Your task to perform on an android device: What's the news in Taiwan? Image 0: 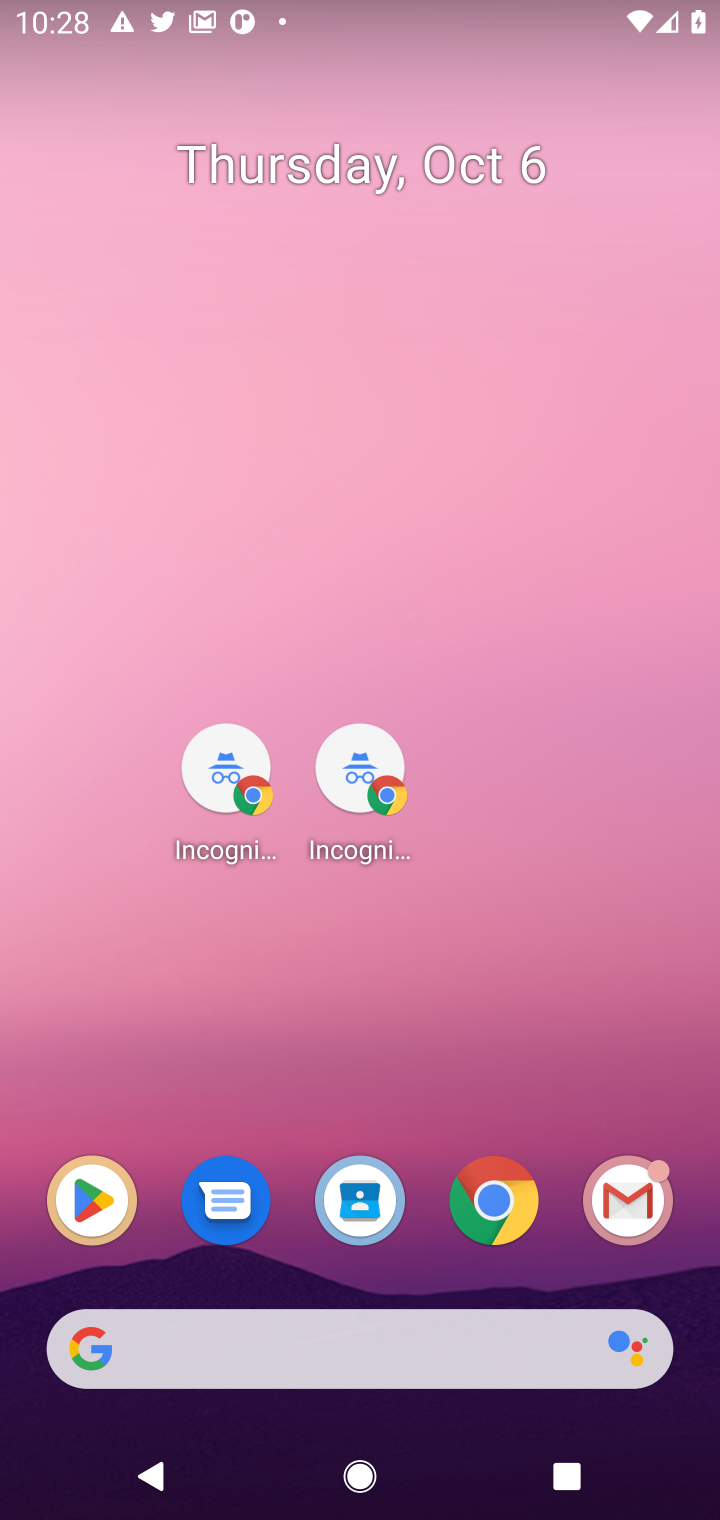
Step 0: click (501, 1191)
Your task to perform on an android device: What's the news in Taiwan? Image 1: 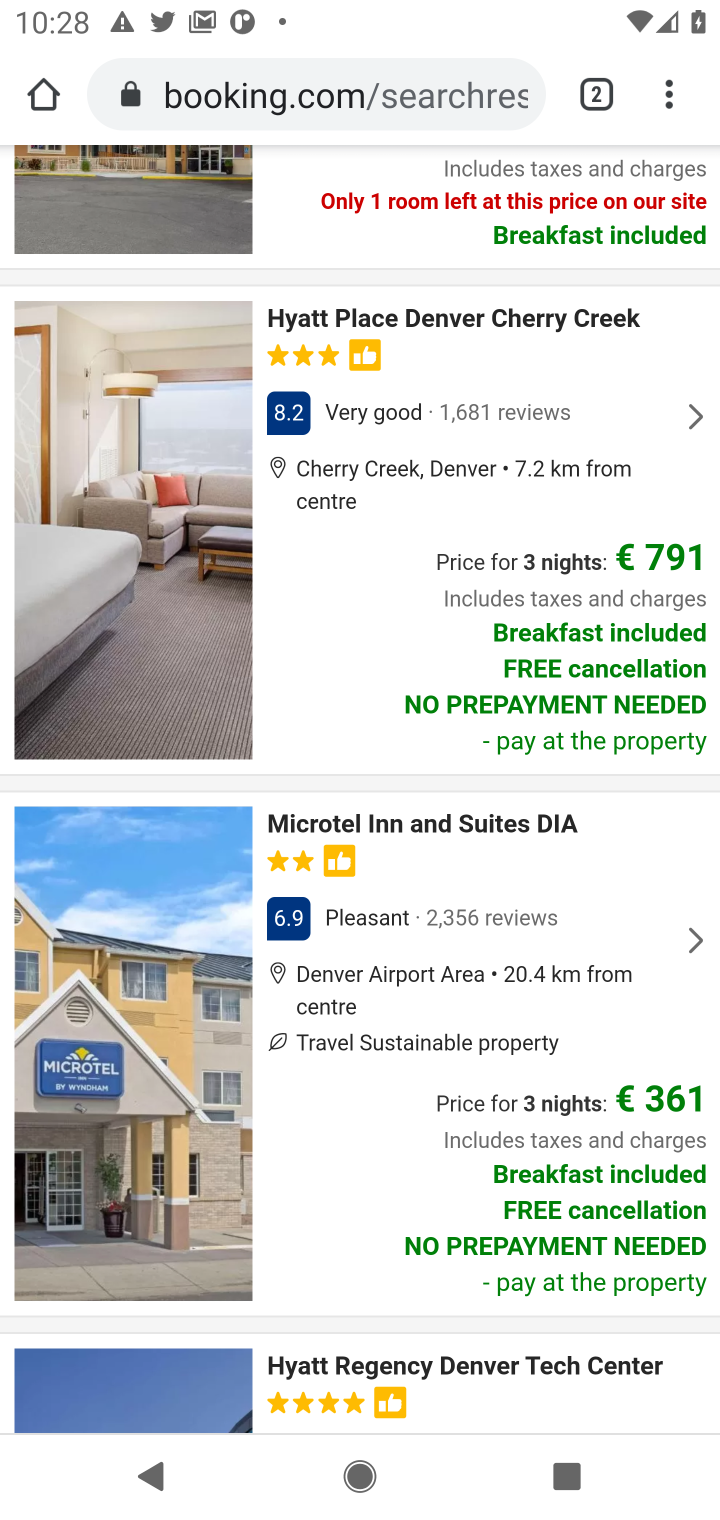
Step 1: click (343, 92)
Your task to perform on an android device: What's the news in Taiwan? Image 2: 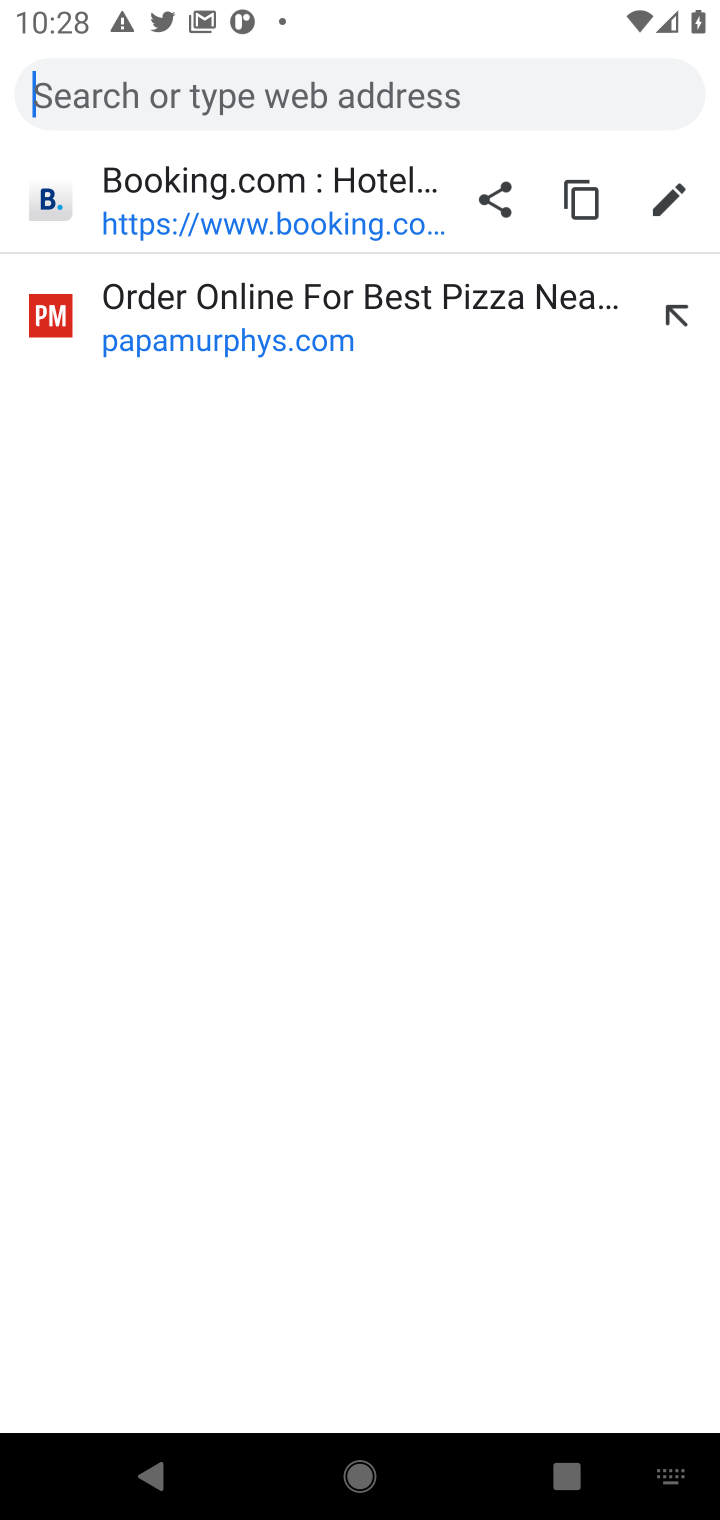
Step 2: type "whats the news in taiwan"
Your task to perform on an android device: What's the news in Taiwan? Image 3: 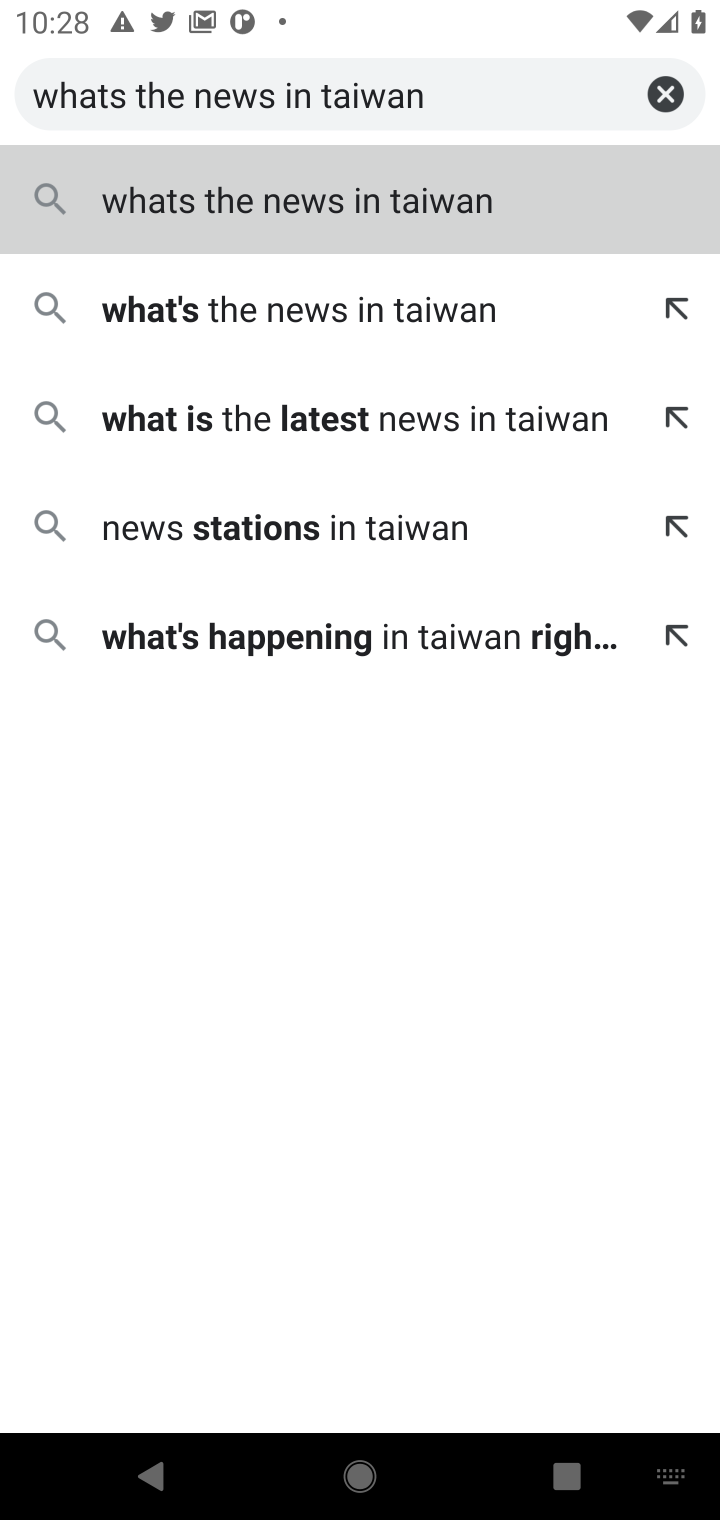
Step 3: click (260, 311)
Your task to perform on an android device: What's the news in Taiwan? Image 4: 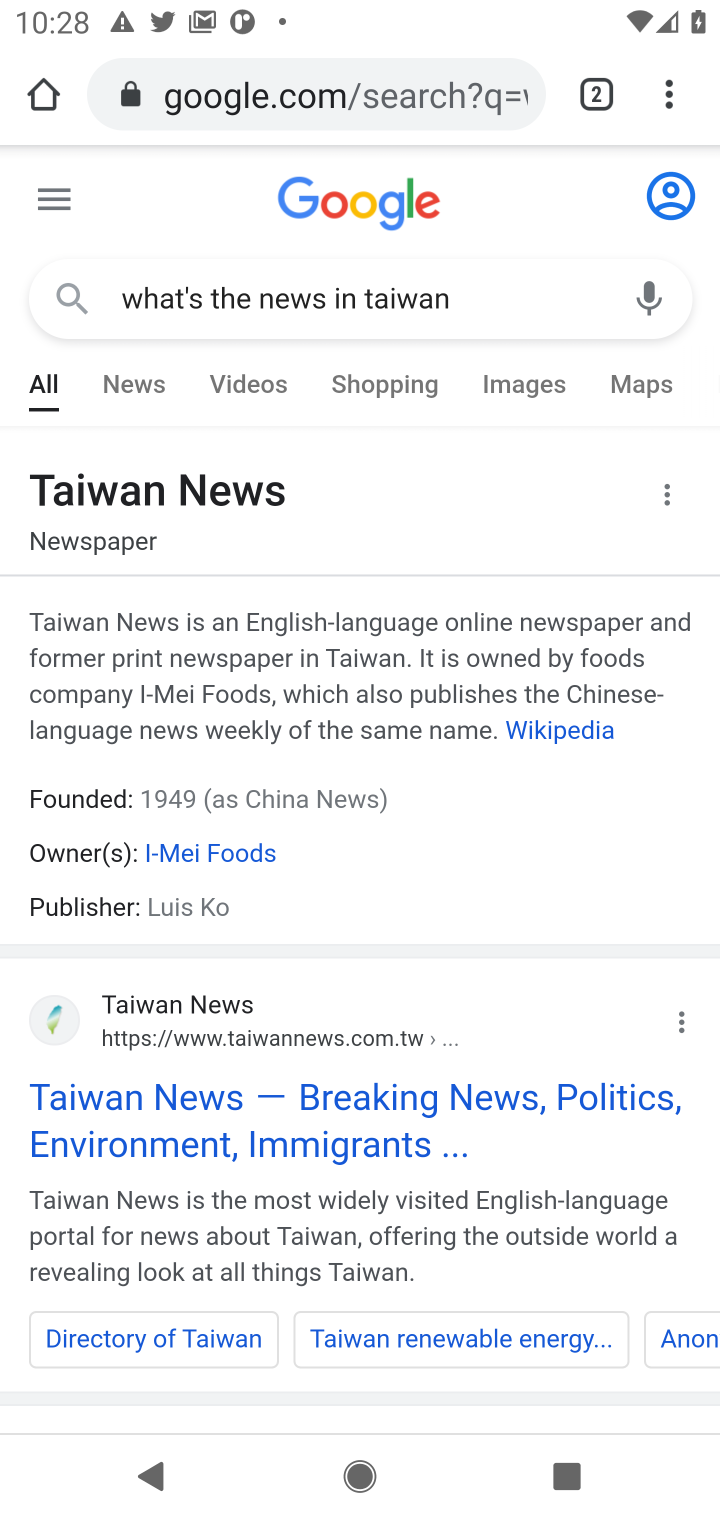
Step 4: click (196, 1106)
Your task to perform on an android device: What's the news in Taiwan? Image 5: 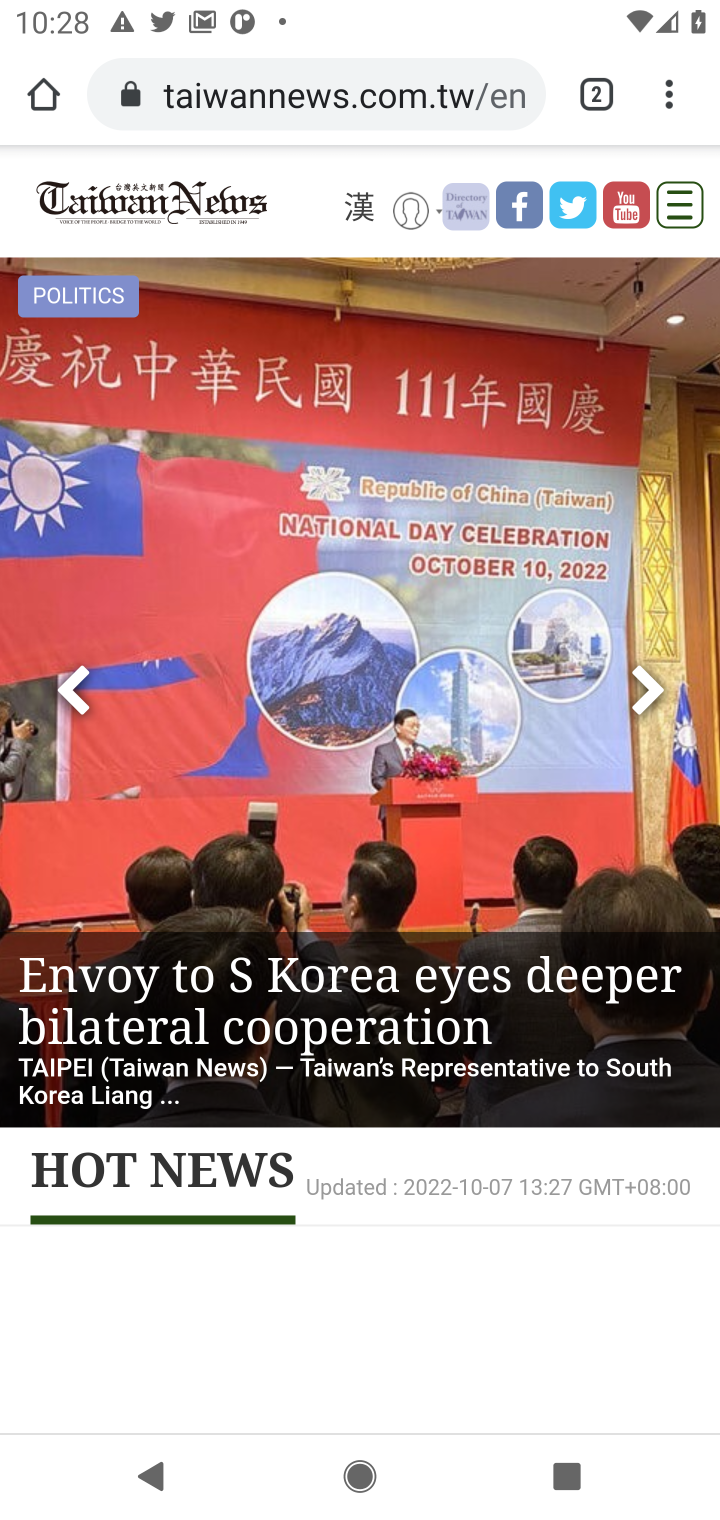
Step 5: drag from (370, 1140) to (458, 419)
Your task to perform on an android device: What's the news in Taiwan? Image 6: 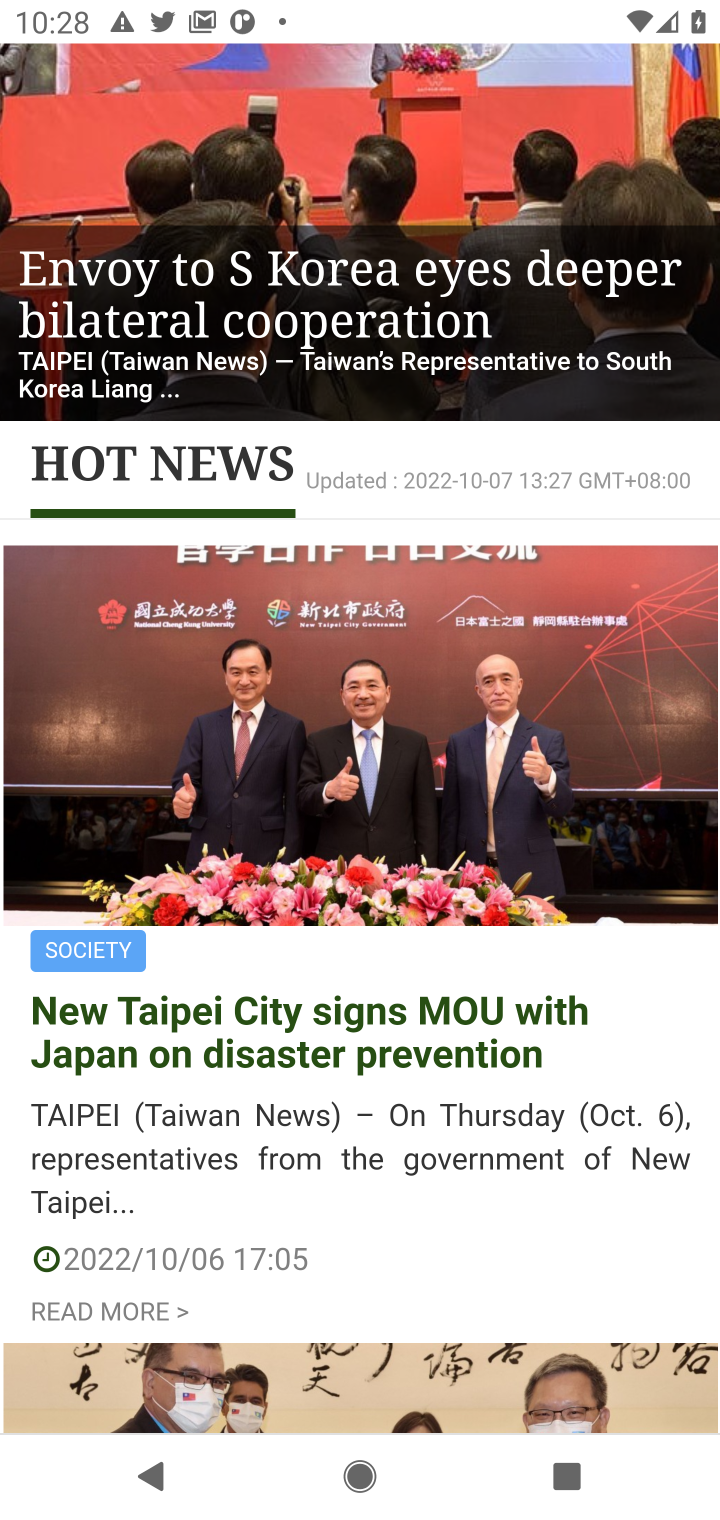
Step 6: drag from (389, 980) to (466, 514)
Your task to perform on an android device: What's the news in Taiwan? Image 7: 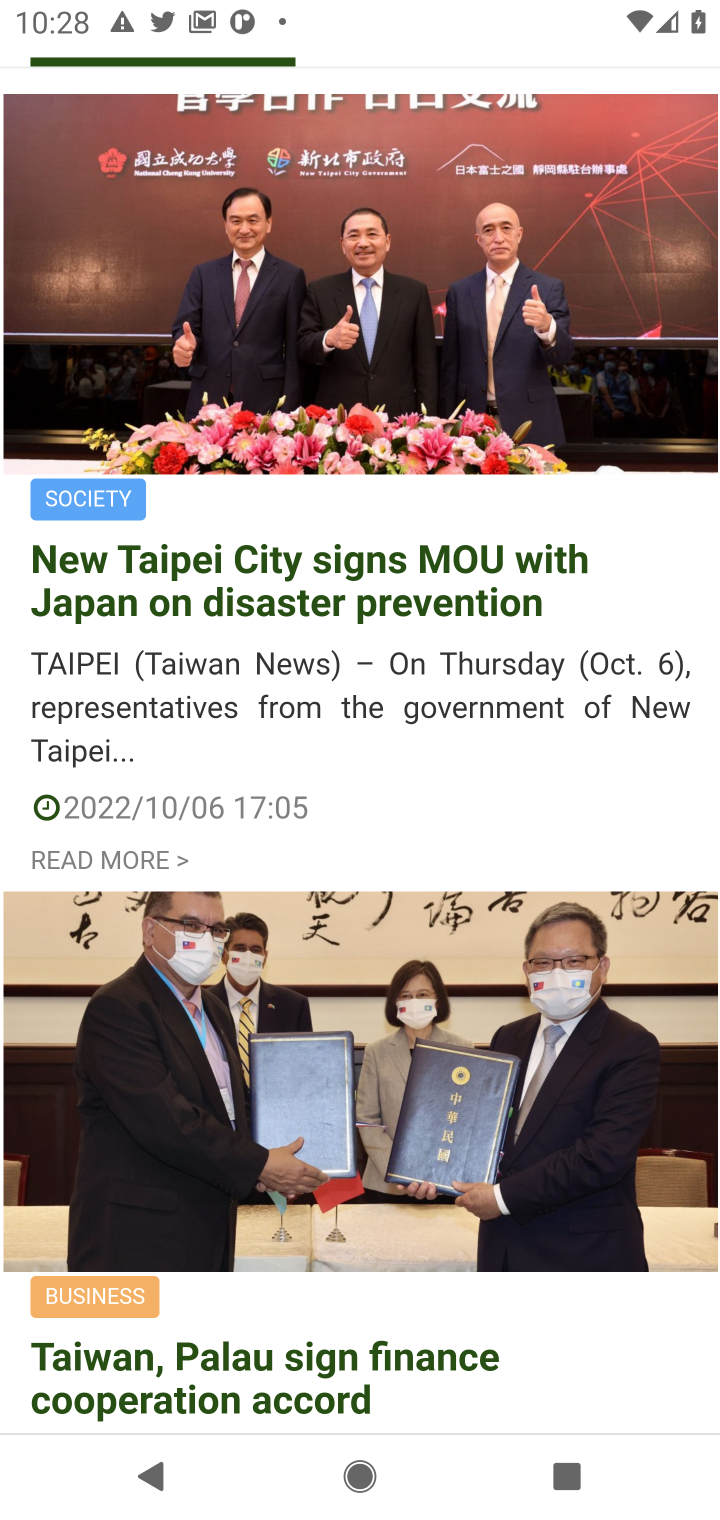
Step 7: drag from (365, 502) to (386, 426)
Your task to perform on an android device: What's the news in Taiwan? Image 8: 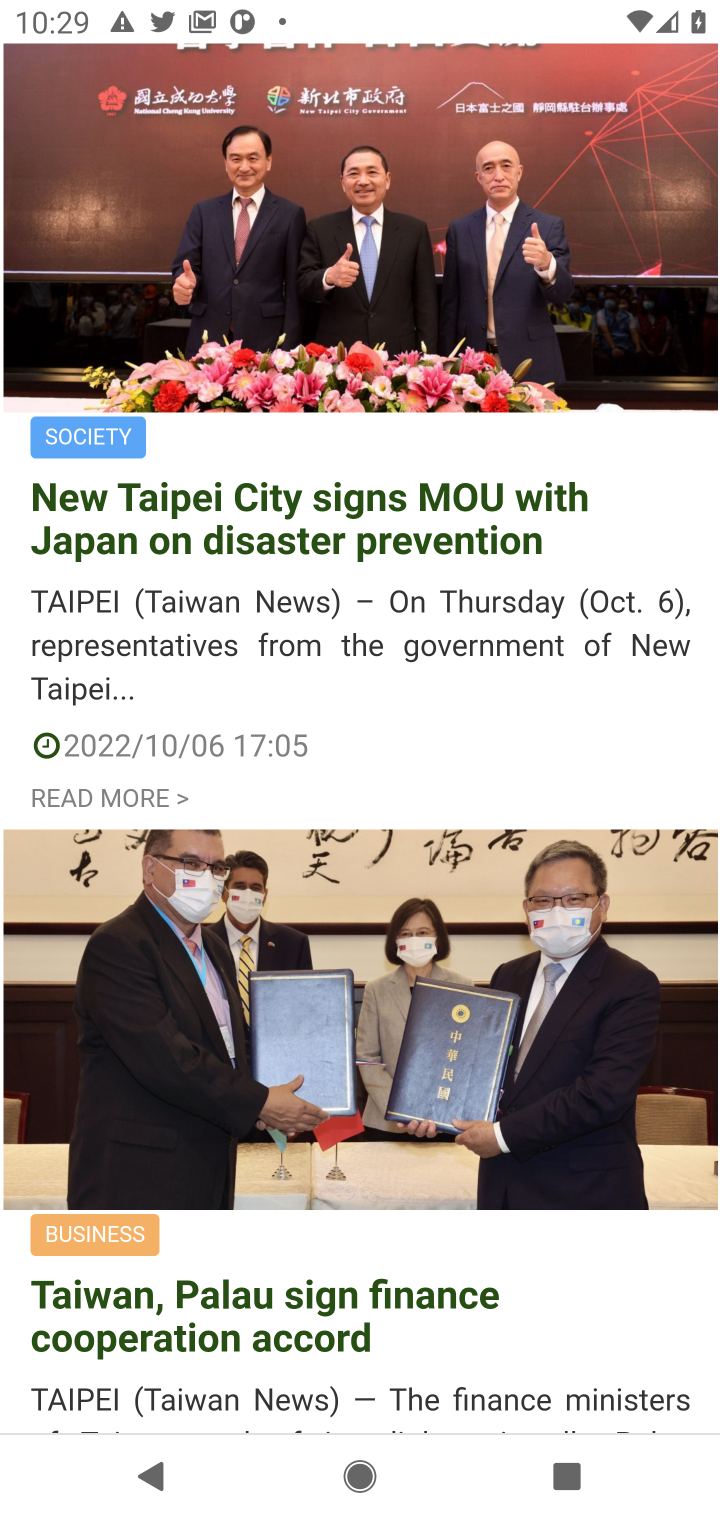
Step 8: drag from (350, 920) to (412, 455)
Your task to perform on an android device: What's the news in Taiwan? Image 9: 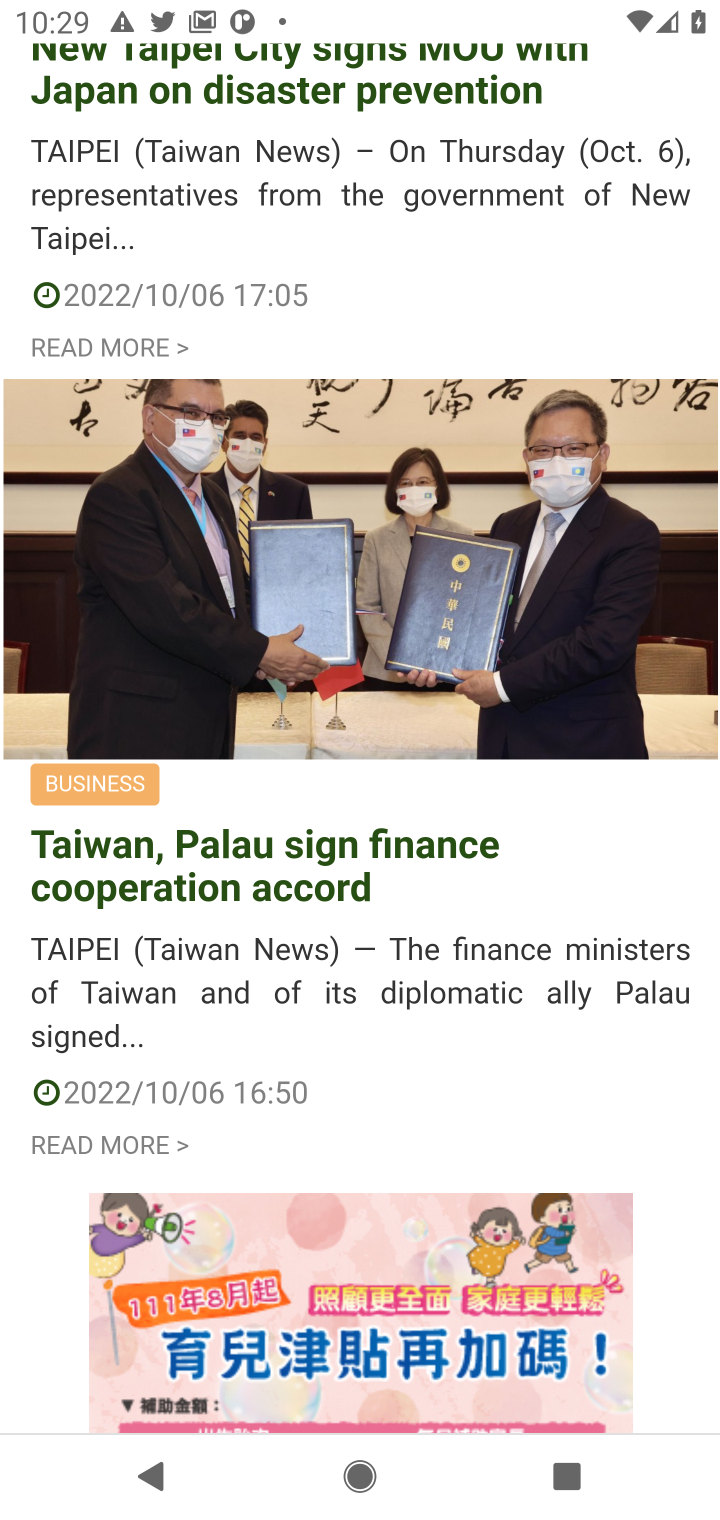
Step 9: drag from (406, 1028) to (533, 530)
Your task to perform on an android device: What's the news in Taiwan? Image 10: 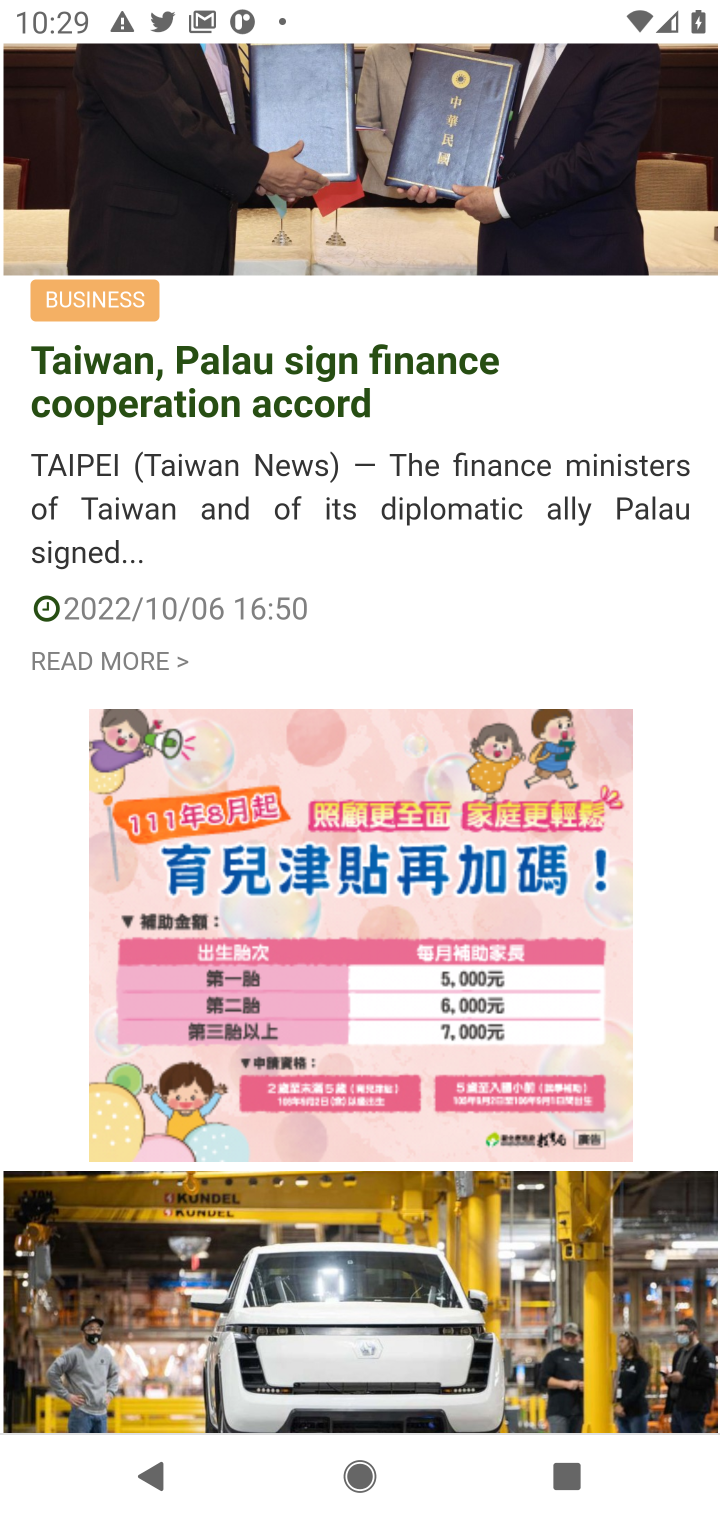
Step 10: drag from (502, 1212) to (515, 412)
Your task to perform on an android device: What's the news in Taiwan? Image 11: 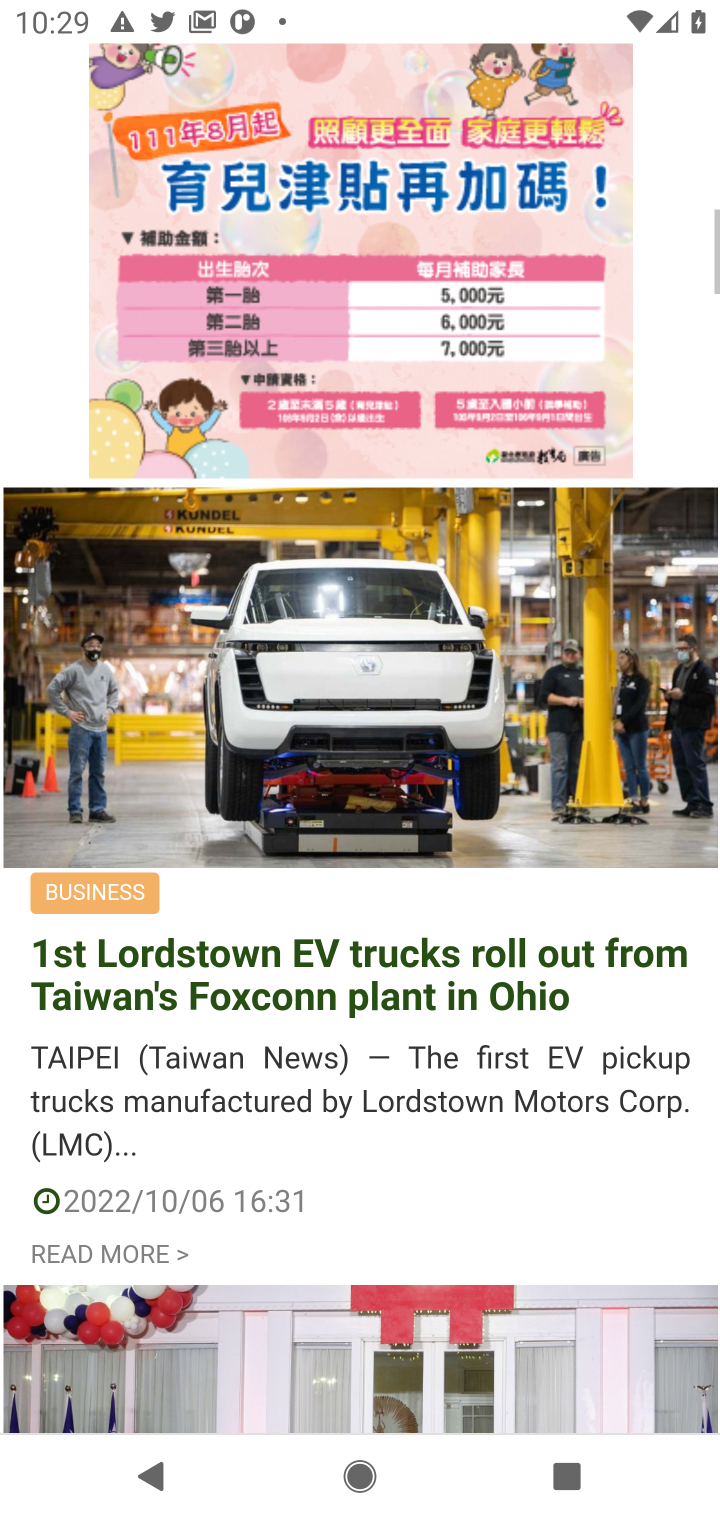
Step 11: drag from (513, 767) to (521, 591)
Your task to perform on an android device: What's the news in Taiwan? Image 12: 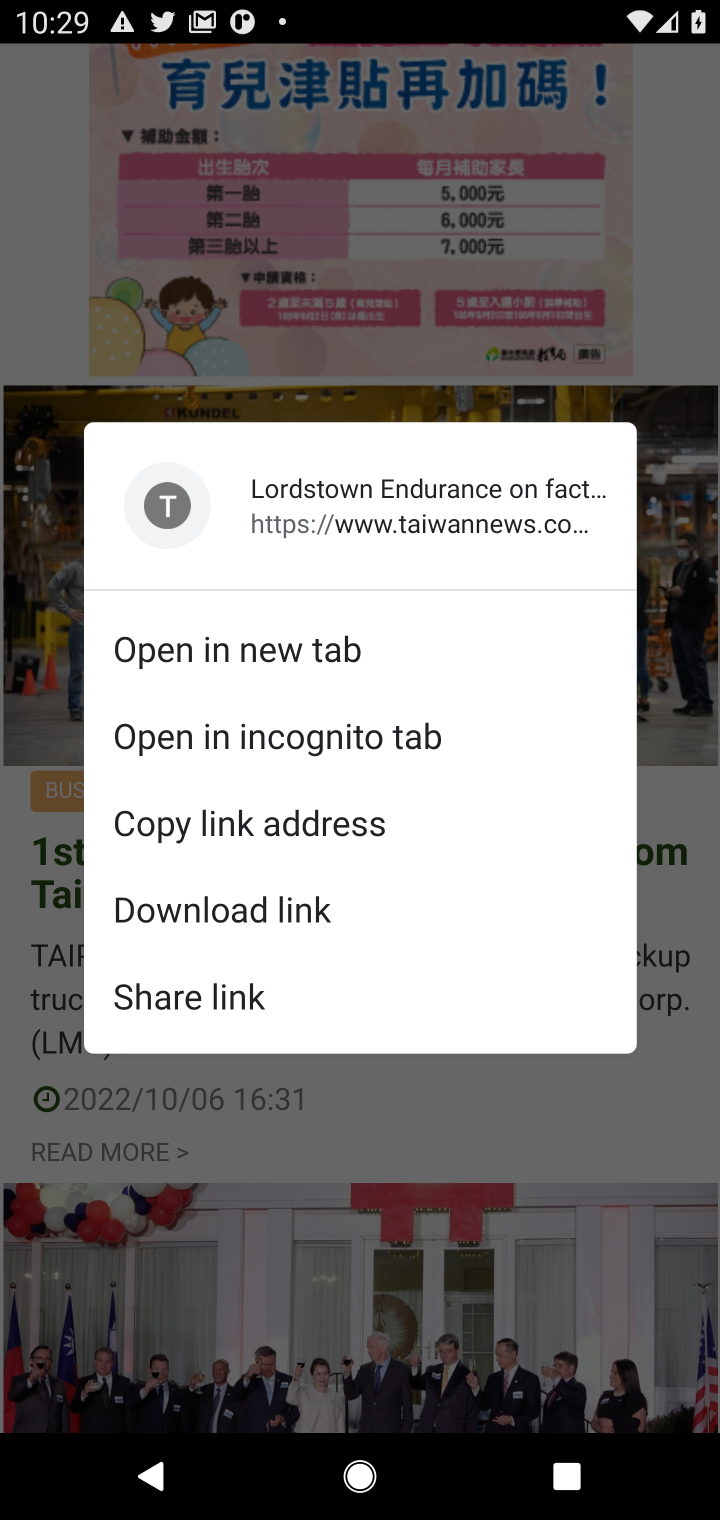
Step 12: drag from (484, 861) to (538, 386)
Your task to perform on an android device: What's the news in Taiwan? Image 13: 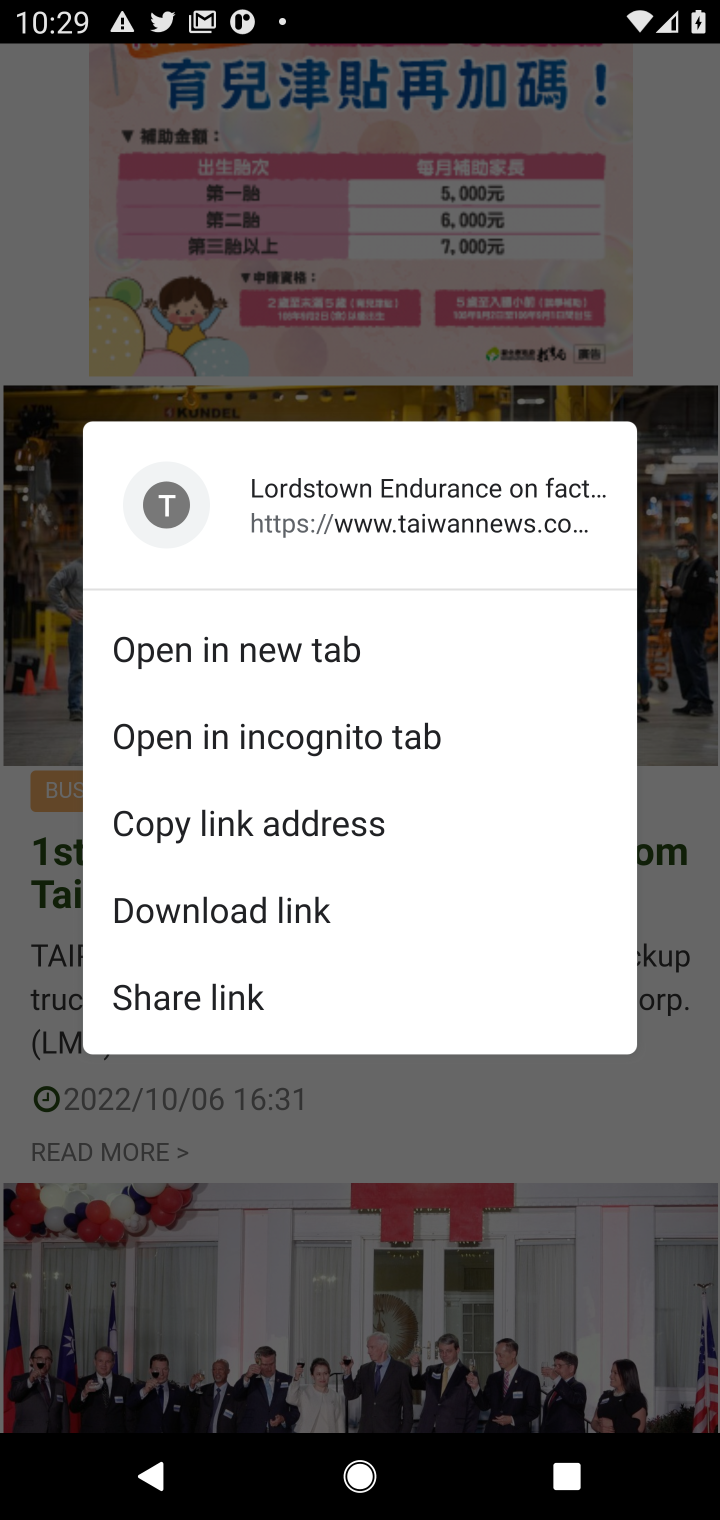
Step 13: click (597, 1164)
Your task to perform on an android device: What's the news in Taiwan? Image 14: 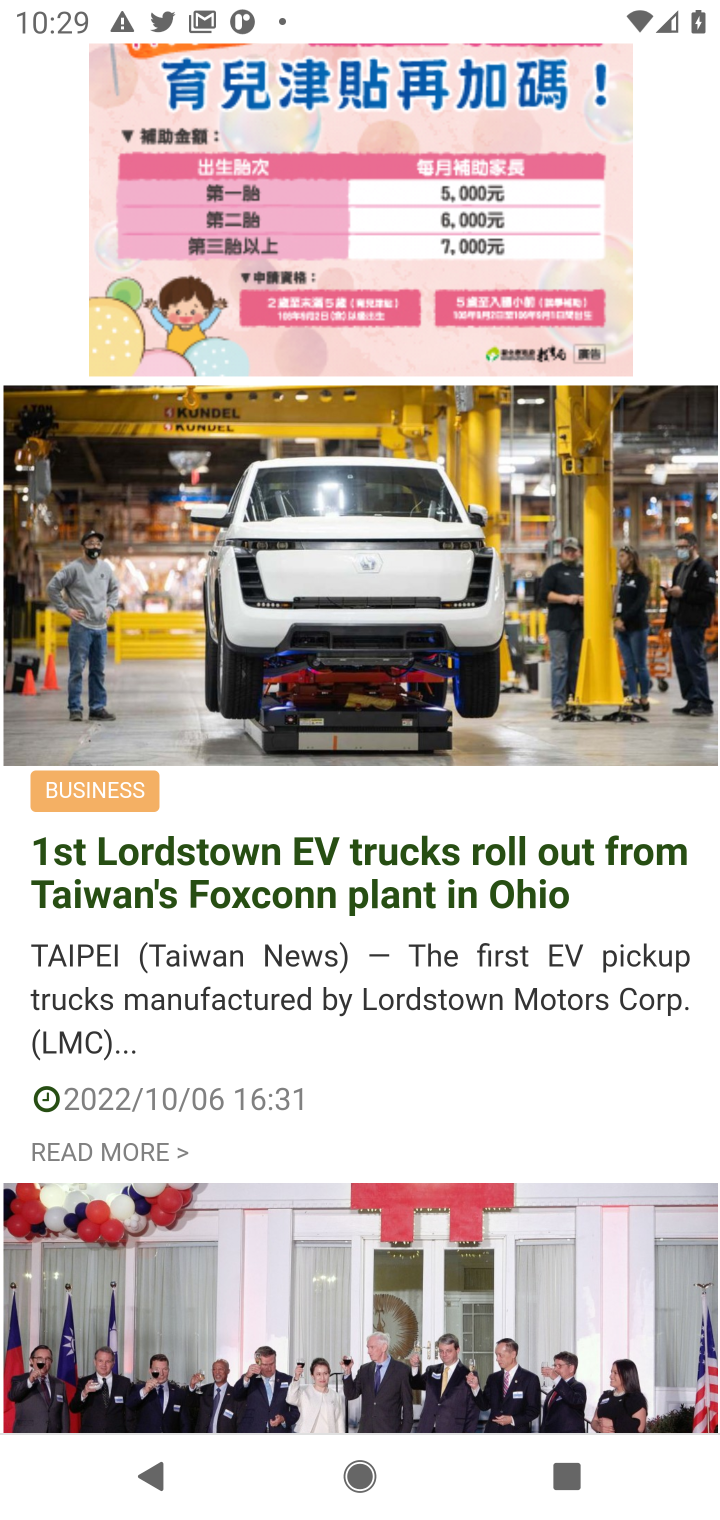
Step 14: task complete